Your task to perform on an android device: toggle airplane mode Image 0: 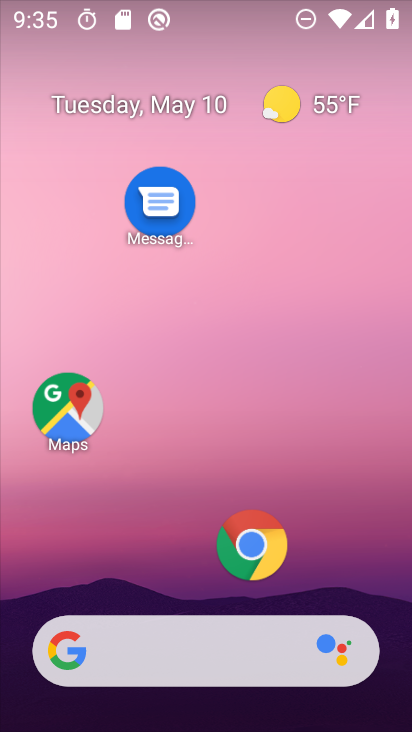
Step 0: drag from (179, 585) to (235, 135)
Your task to perform on an android device: toggle airplane mode Image 1: 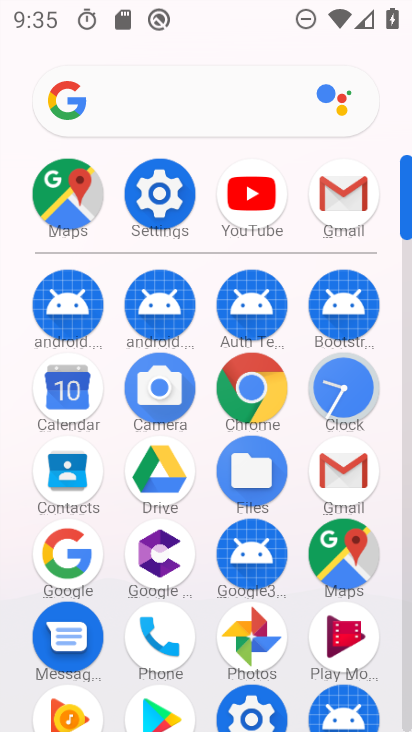
Step 1: click (160, 186)
Your task to perform on an android device: toggle airplane mode Image 2: 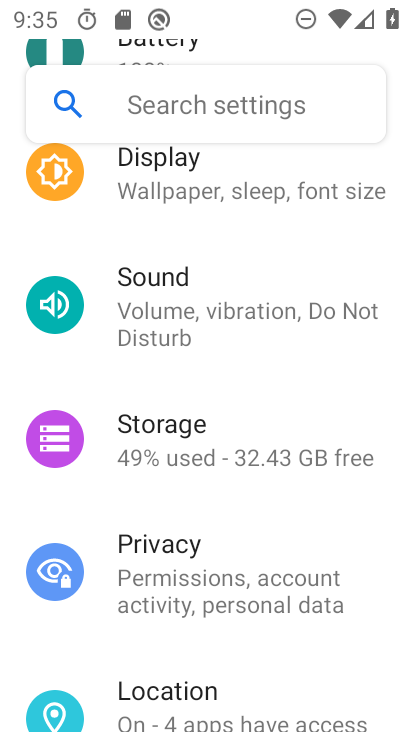
Step 2: drag from (253, 256) to (262, 509)
Your task to perform on an android device: toggle airplane mode Image 3: 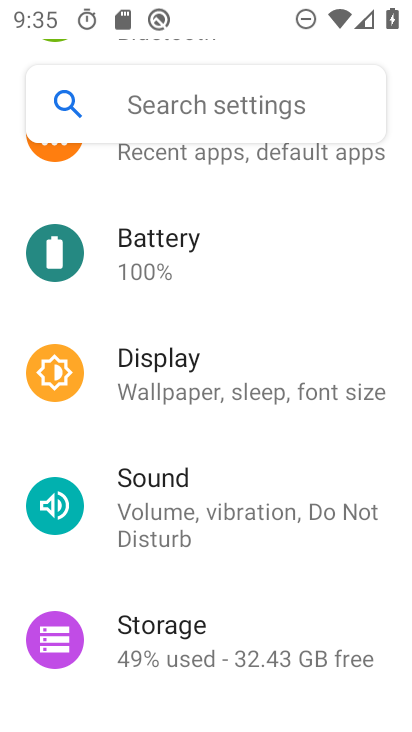
Step 3: drag from (220, 226) to (226, 584)
Your task to perform on an android device: toggle airplane mode Image 4: 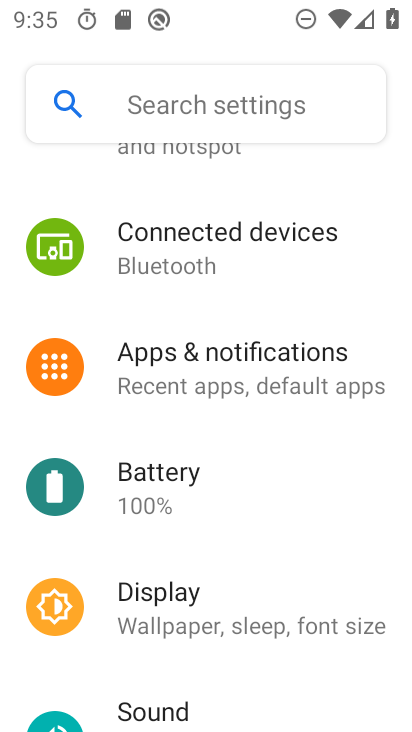
Step 4: drag from (204, 218) to (241, 592)
Your task to perform on an android device: toggle airplane mode Image 5: 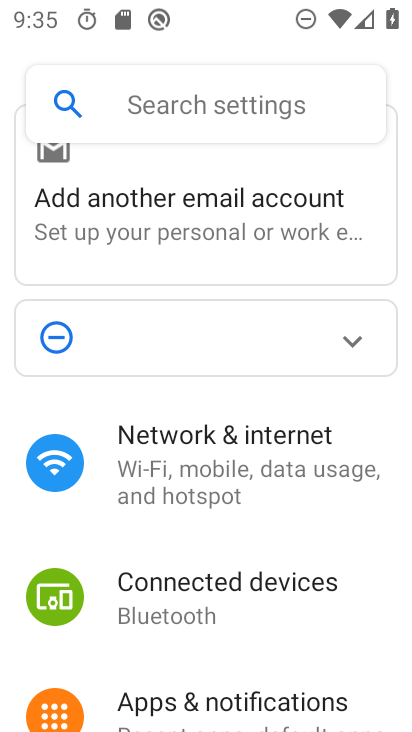
Step 5: click (230, 485)
Your task to perform on an android device: toggle airplane mode Image 6: 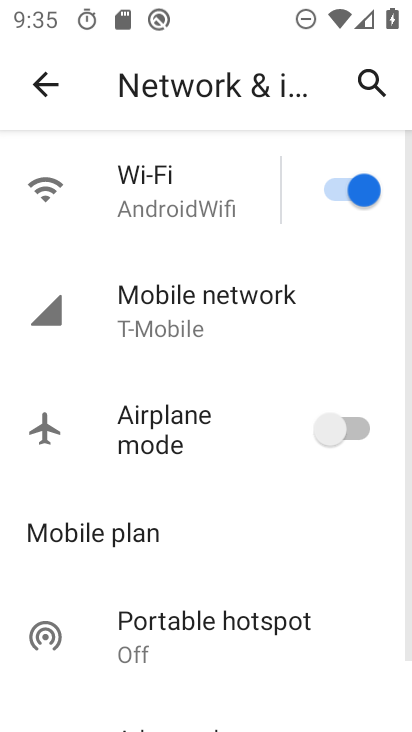
Step 6: click (362, 426)
Your task to perform on an android device: toggle airplane mode Image 7: 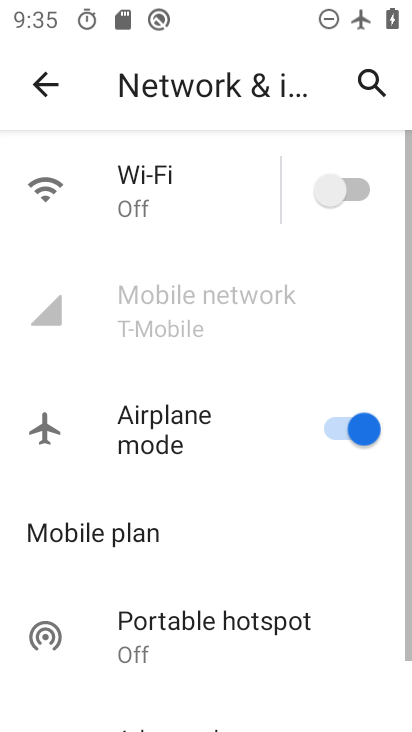
Step 7: task complete